Your task to perform on an android device: Go to Yahoo.com Image 0: 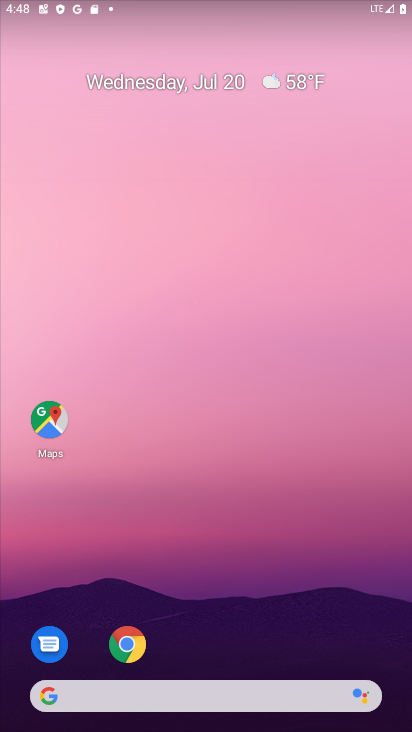
Step 0: click (33, 693)
Your task to perform on an android device: Go to Yahoo.com Image 1: 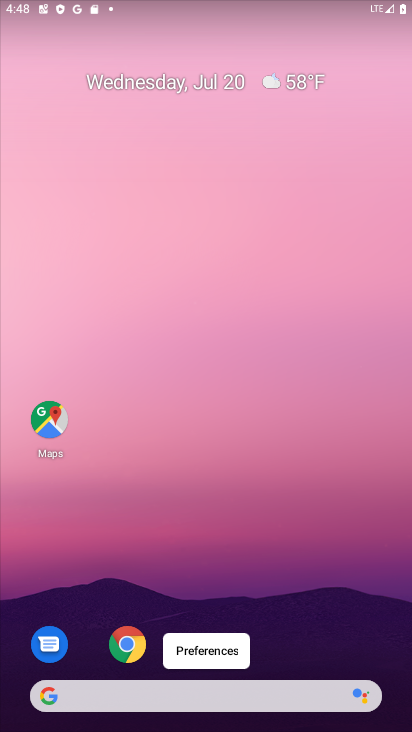
Step 1: click (50, 701)
Your task to perform on an android device: Go to Yahoo.com Image 2: 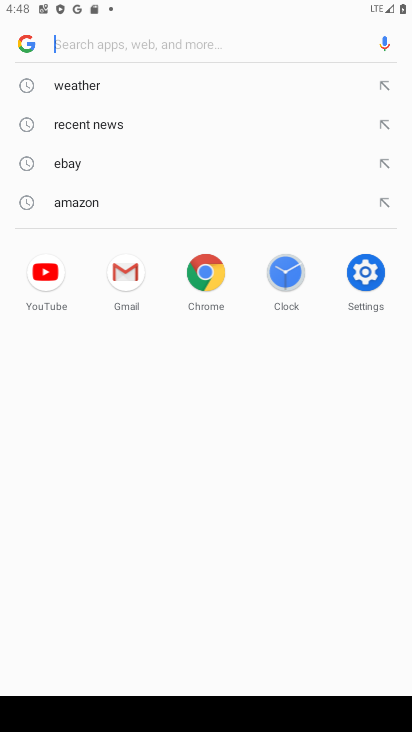
Step 2: type "Yahoo.com"
Your task to perform on an android device: Go to Yahoo.com Image 3: 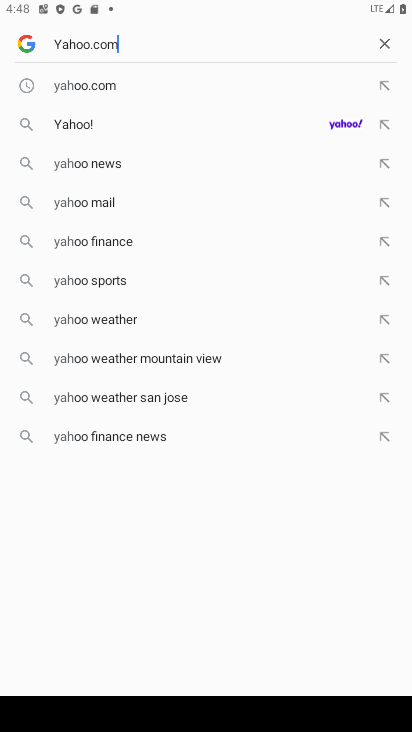
Step 3: press enter
Your task to perform on an android device: Go to Yahoo.com Image 4: 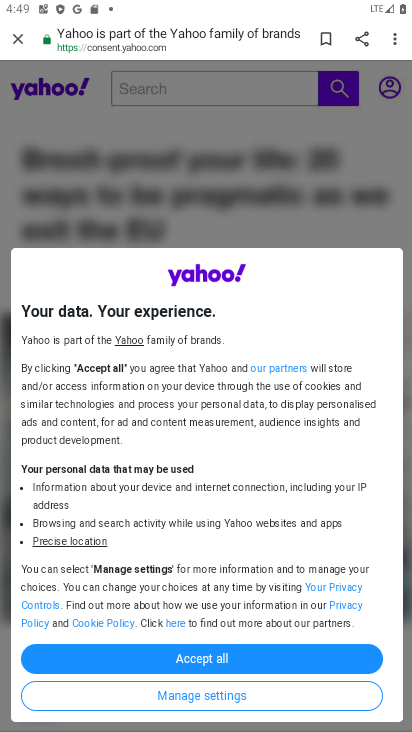
Step 4: click (109, 668)
Your task to perform on an android device: Go to Yahoo.com Image 5: 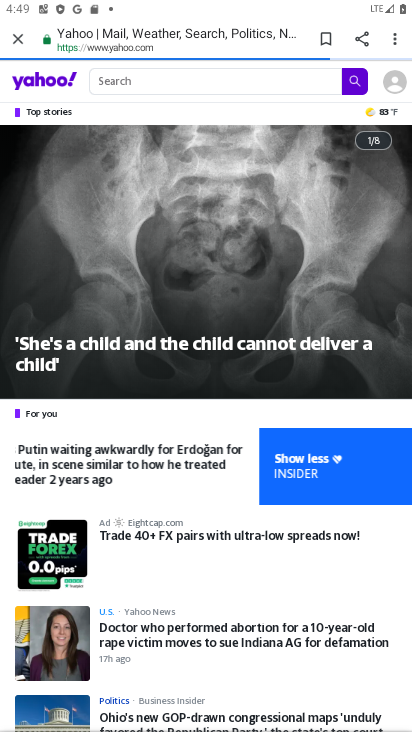
Step 5: task complete